Your task to perform on an android device: Go to privacy settings Image 0: 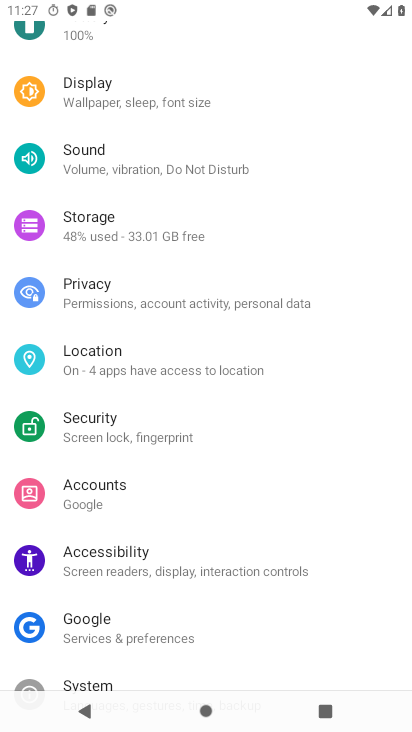
Step 0: drag from (250, 203) to (257, 627)
Your task to perform on an android device: Go to privacy settings Image 1: 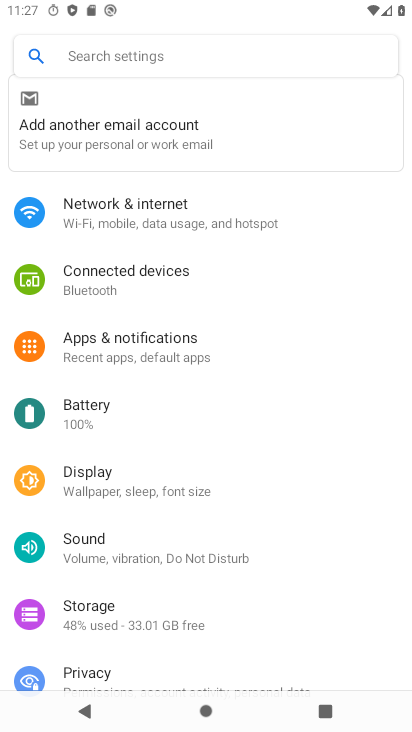
Step 1: click (99, 670)
Your task to perform on an android device: Go to privacy settings Image 2: 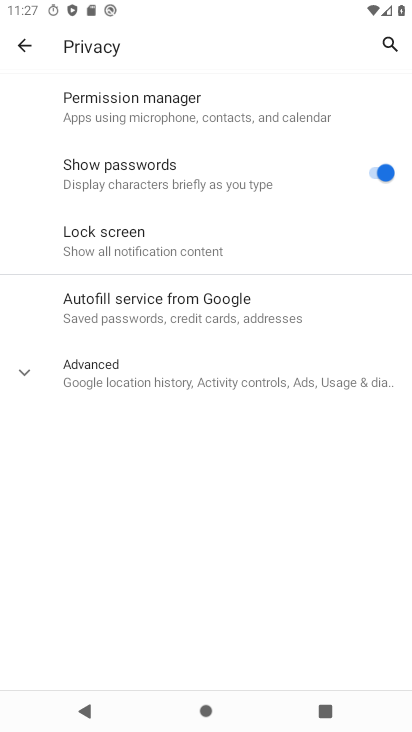
Step 2: task complete